Your task to perform on an android device: find snoozed emails in the gmail app Image 0: 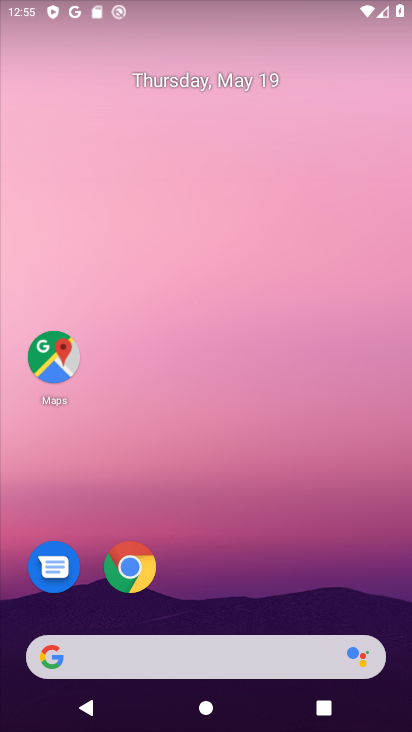
Step 0: drag from (292, 529) to (280, 0)
Your task to perform on an android device: find snoozed emails in the gmail app Image 1: 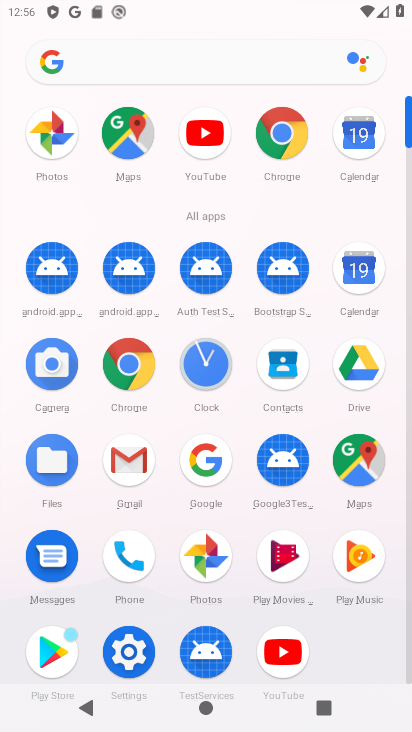
Step 1: click (118, 464)
Your task to perform on an android device: find snoozed emails in the gmail app Image 2: 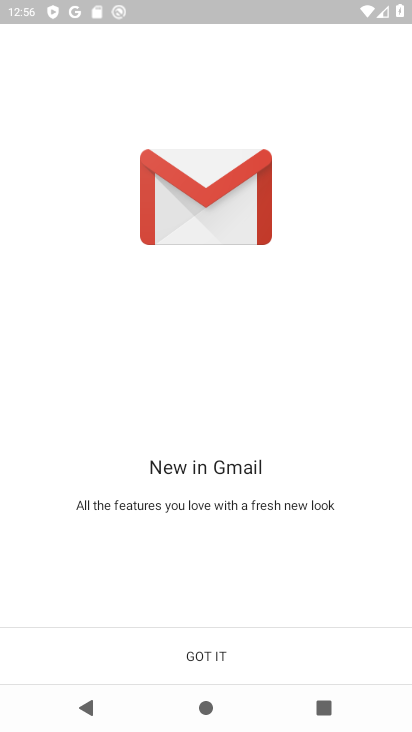
Step 2: click (213, 657)
Your task to perform on an android device: find snoozed emails in the gmail app Image 3: 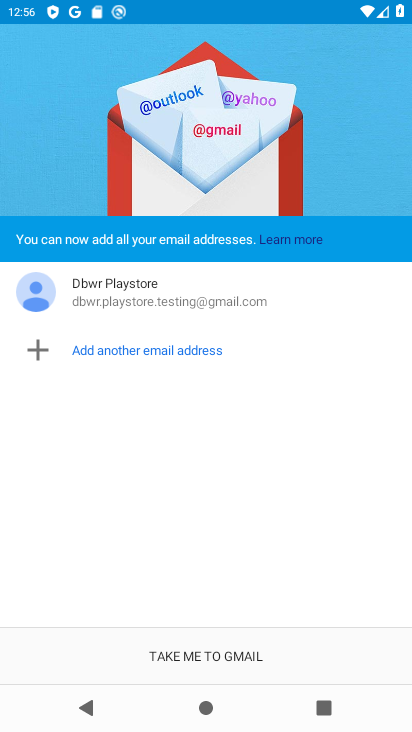
Step 3: click (213, 657)
Your task to perform on an android device: find snoozed emails in the gmail app Image 4: 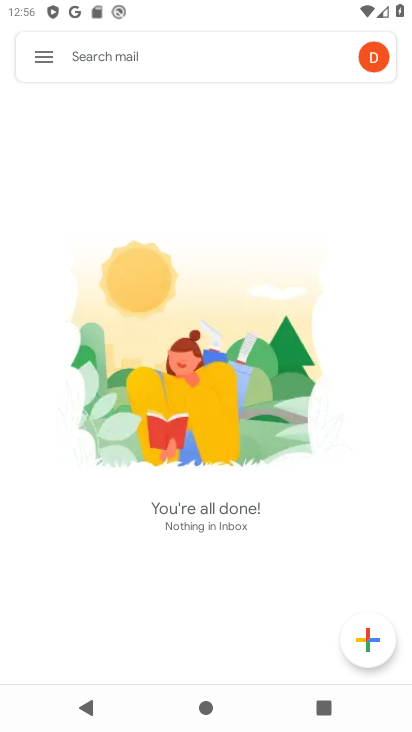
Step 4: click (38, 60)
Your task to perform on an android device: find snoozed emails in the gmail app Image 5: 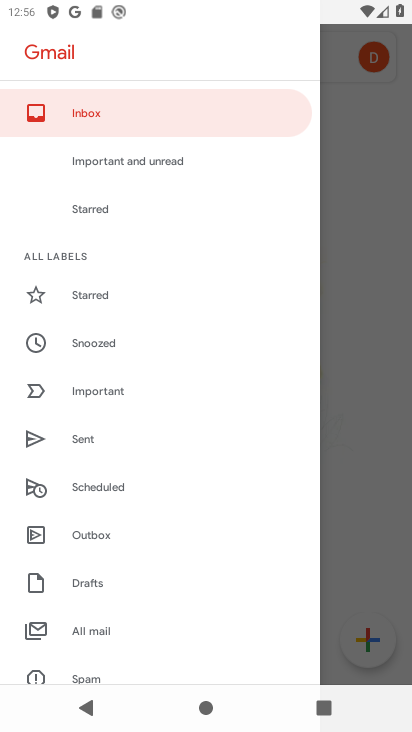
Step 5: click (118, 352)
Your task to perform on an android device: find snoozed emails in the gmail app Image 6: 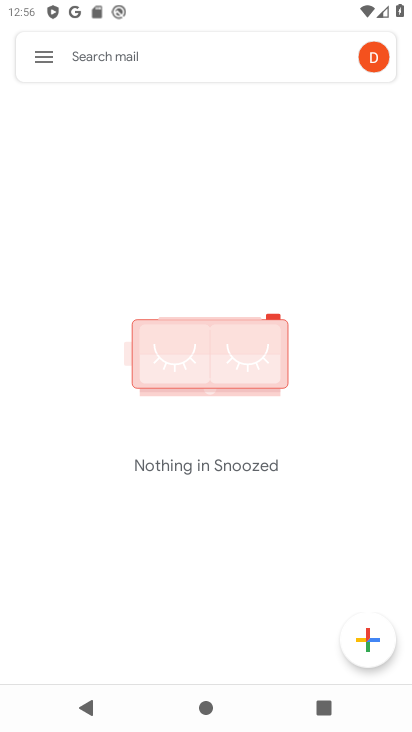
Step 6: task complete